Your task to perform on an android device: Go to Android settings Image 0: 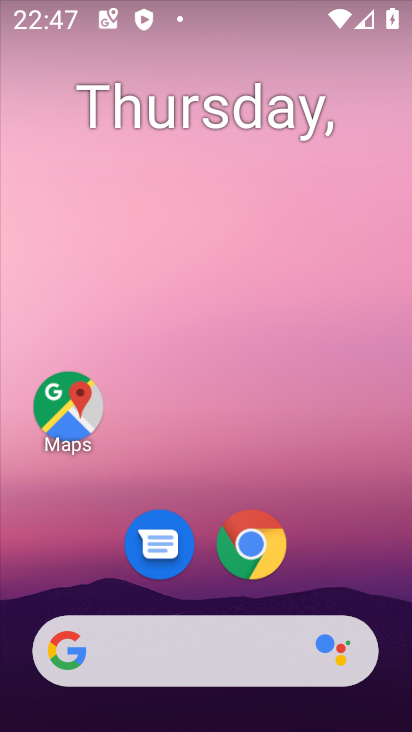
Step 0: drag from (312, 535) to (204, 35)
Your task to perform on an android device: Go to Android settings Image 1: 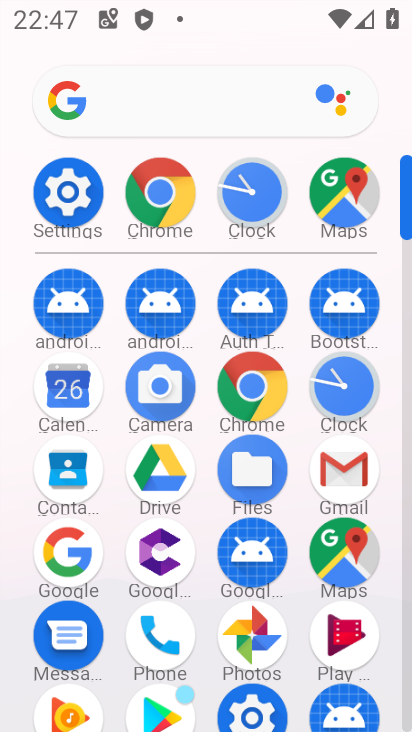
Step 1: drag from (13, 609) to (12, 282)
Your task to perform on an android device: Go to Android settings Image 2: 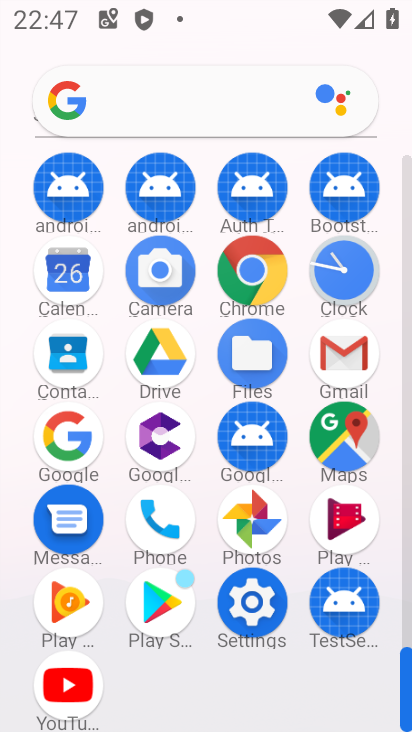
Step 2: click (248, 598)
Your task to perform on an android device: Go to Android settings Image 3: 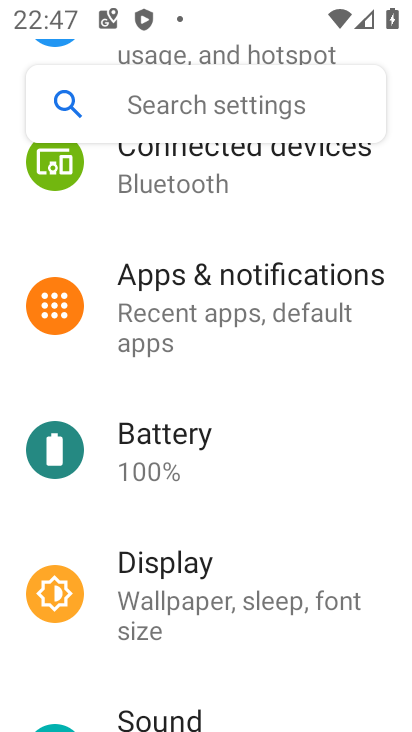
Step 3: task complete